Your task to perform on an android device: Search for flights from London to Paris Image 0: 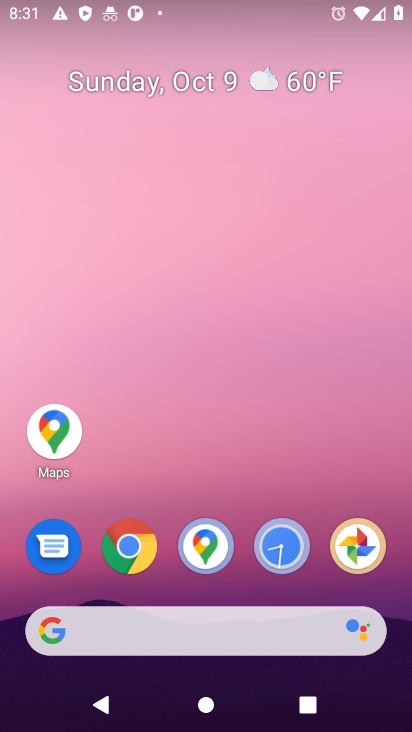
Step 0: click (138, 549)
Your task to perform on an android device: Search for flights from London to Paris Image 1: 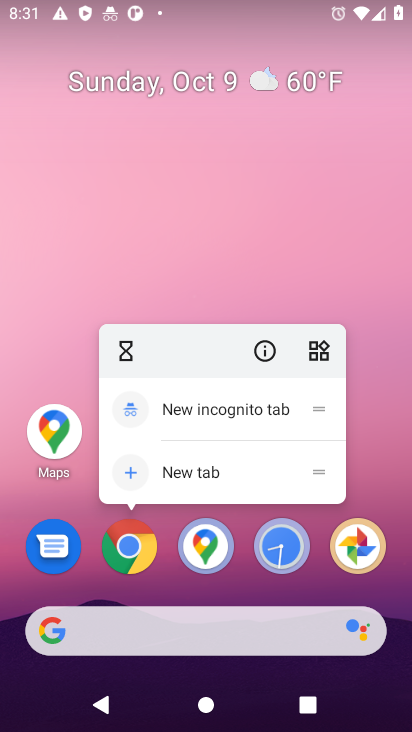
Step 1: click (128, 564)
Your task to perform on an android device: Search for flights from London to Paris Image 2: 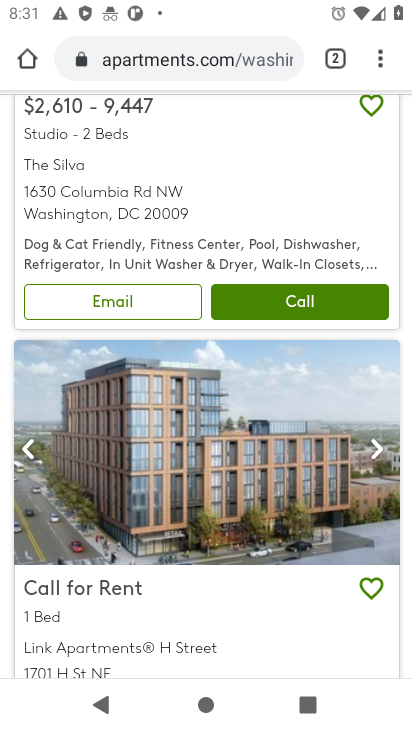
Step 2: click (172, 72)
Your task to perform on an android device: Search for flights from London to Paris Image 3: 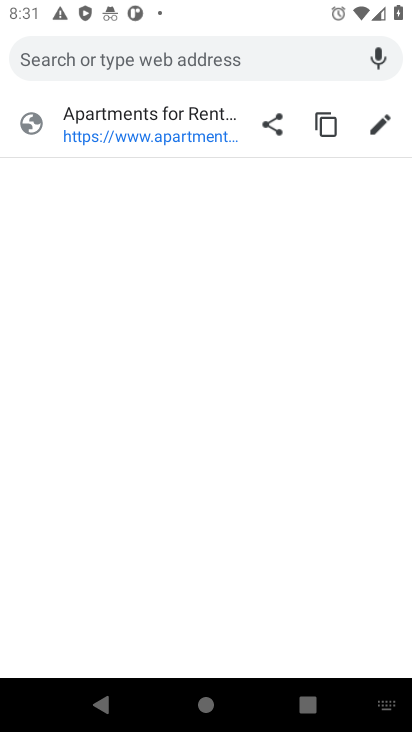
Step 3: type "flights from london to paris"
Your task to perform on an android device: Search for flights from London to Paris Image 4: 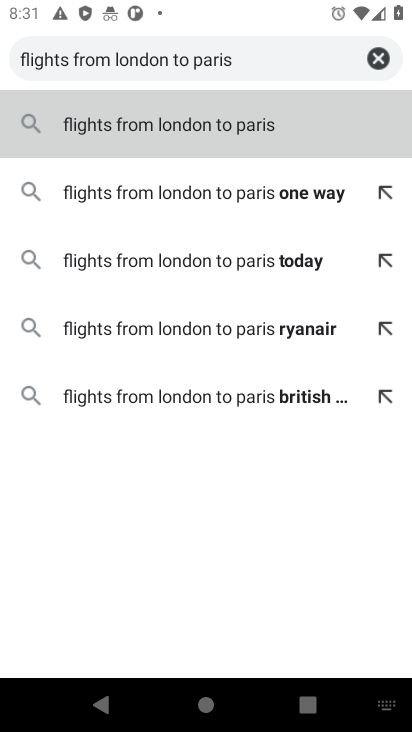
Step 4: click (261, 116)
Your task to perform on an android device: Search for flights from London to Paris Image 5: 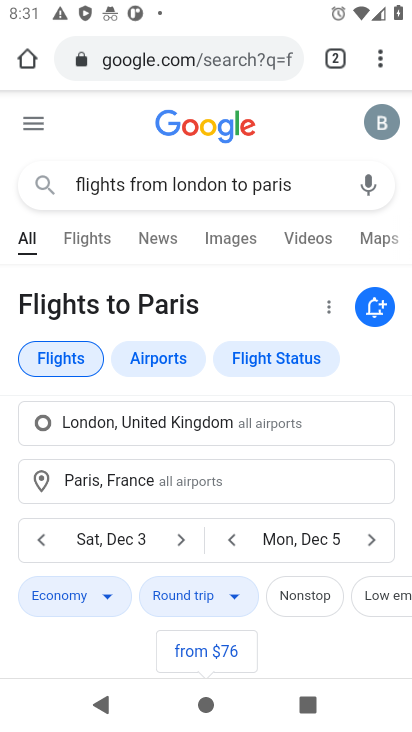
Step 5: drag from (169, 495) to (176, 315)
Your task to perform on an android device: Search for flights from London to Paris Image 6: 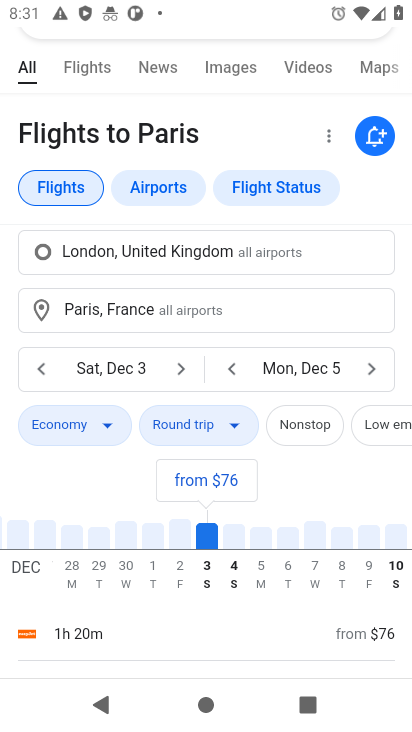
Step 6: drag from (183, 589) to (151, 108)
Your task to perform on an android device: Search for flights from London to Paris Image 7: 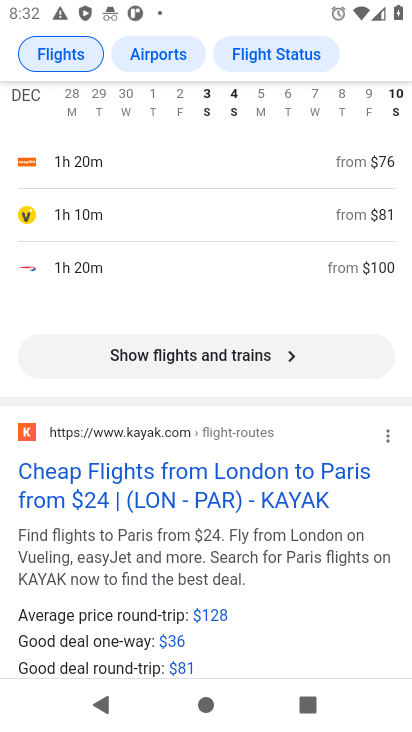
Step 7: drag from (179, 583) to (183, 442)
Your task to perform on an android device: Search for flights from London to Paris Image 8: 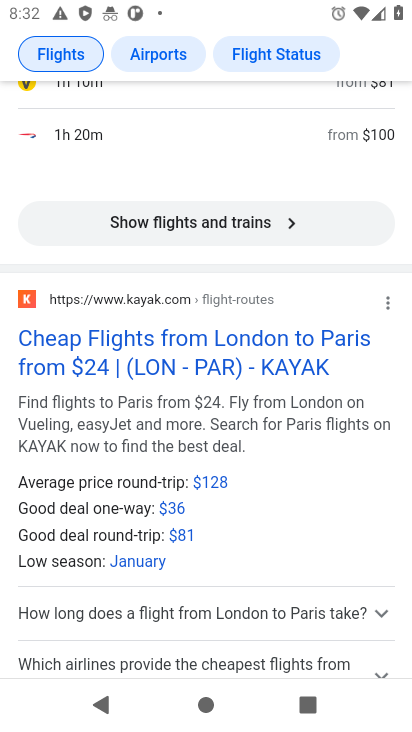
Step 8: click (180, 379)
Your task to perform on an android device: Search for flights from London to Paris Image 9: 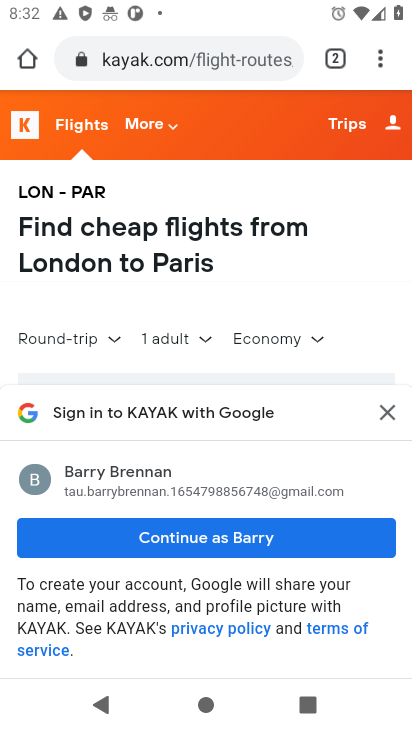
Step 9: drag from (180, 379) to (180, 327)
Your task to perform on an android device: Search for flights from London to Paris Image 10: 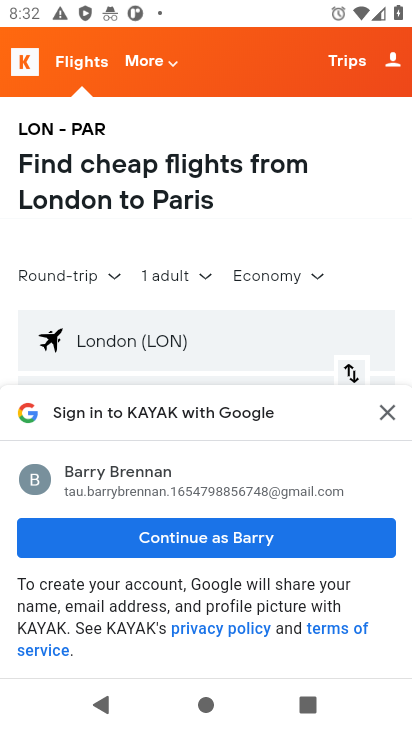
Step 10: click (186, 539)
Your task to perform on an android device: Search for flights from London to Paris Image 11: 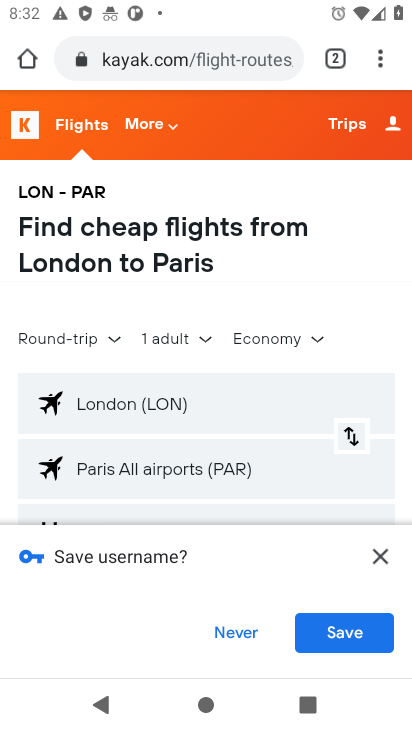
Step 11: click (231, 634)
Your task to perform on an android device: Search for flights from London to Paris Image 12: 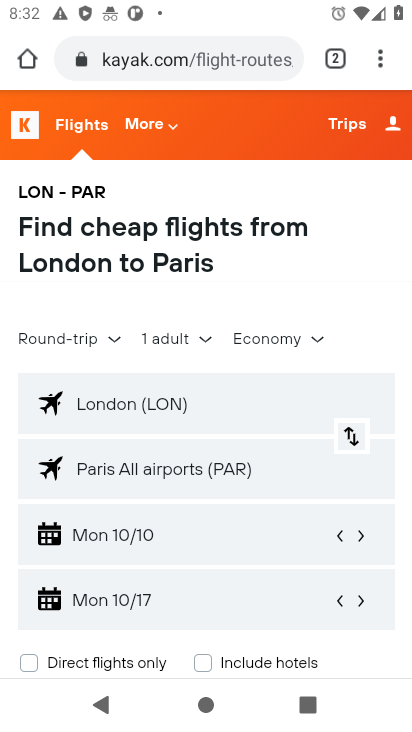
Step 12: drag from (231, 634) to (235, 433)
Your task to perform on an android device: Search for flights from London to Paris Image 13: 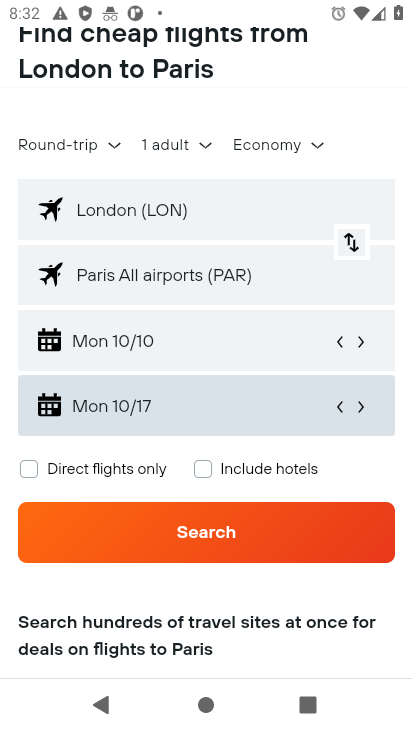
Step 13: click (201, 542)
Your task to perform on an android device: Search for flights from London to Paris Image 14: 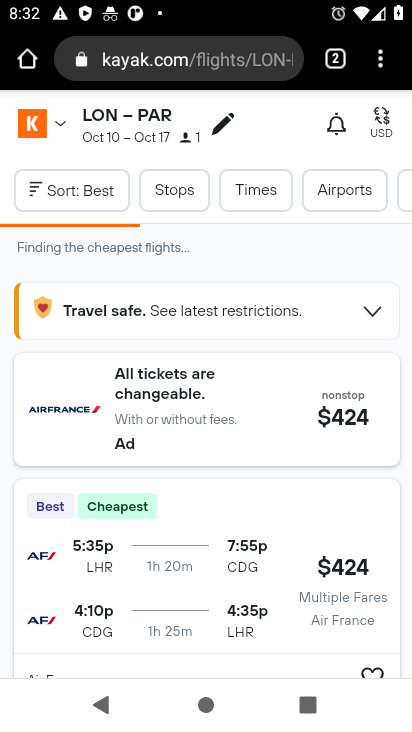
Step 14: task complete